Your task to perform on an android device: Open display settings Image 0: 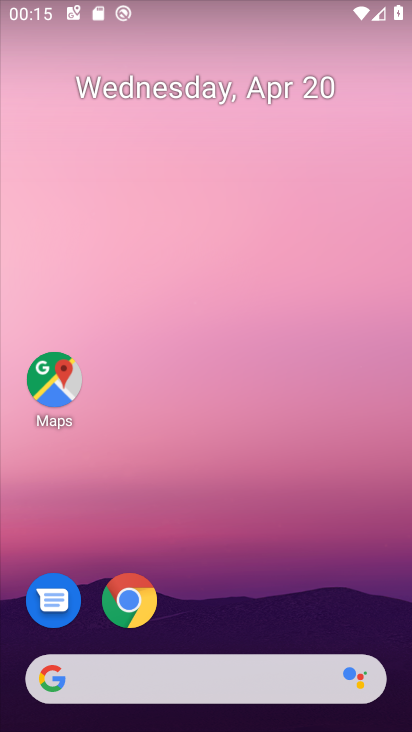
Step 0: drag from (387, 499) to (387, 69)
Your task to perform on an android device: Open display settings Image 1: 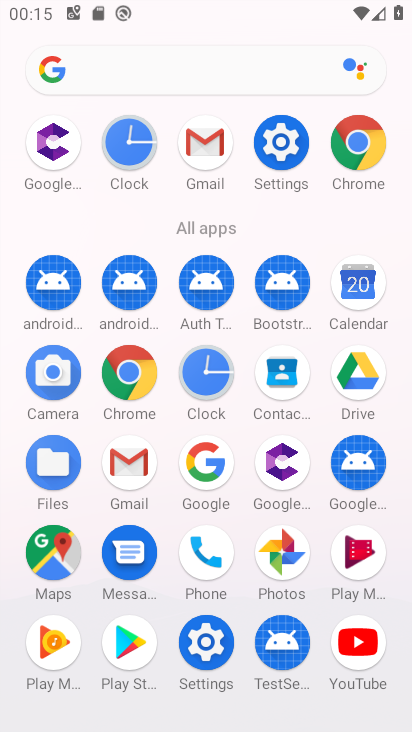
Step 1: click (266, 155)
Your task to perform on an android device: Open display settings Image 2: 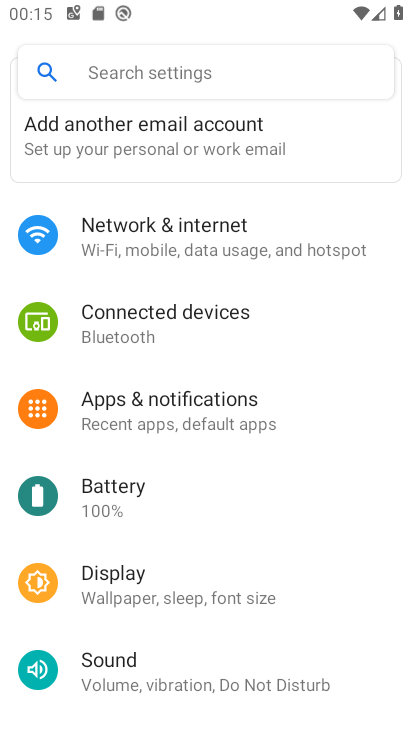
Step 2: drag from (303, 564) to (331, 310)
Your task to perform on an android device: Open display settings Image 3: 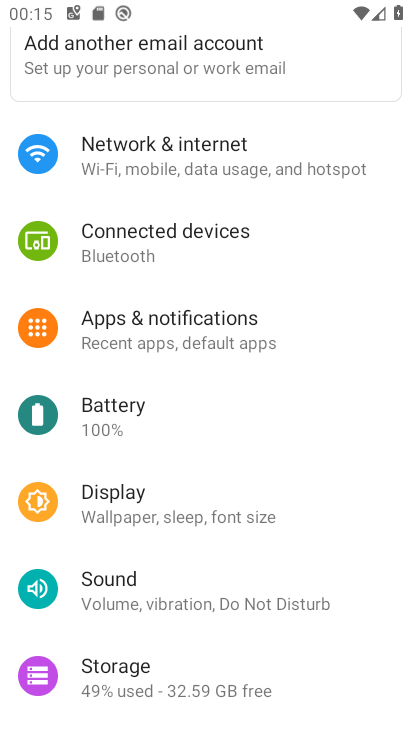
Step 3: click (132, 492)
Your task to perform on an android device: Open display settings Image 4: 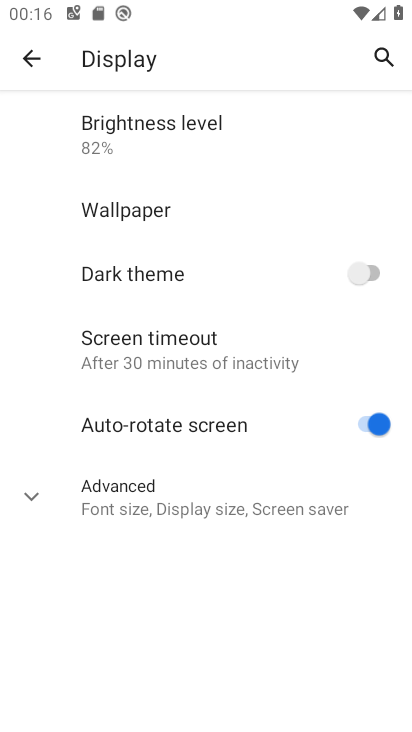
Step 4: task complete